Your task to perform on an android device: toggle wifi Image 0: 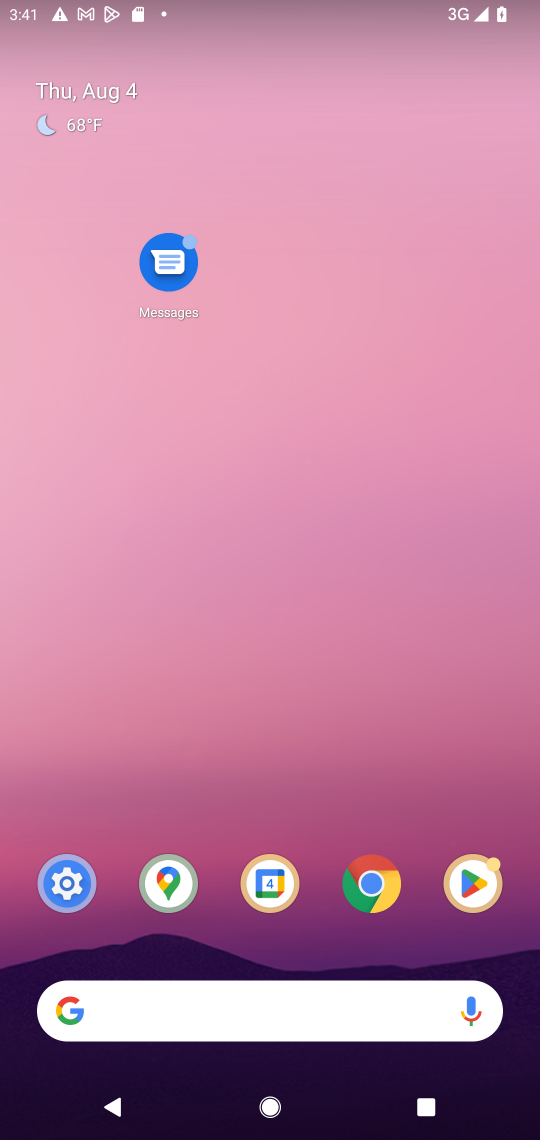
Step 0: drag from (263, 1061) to (376, 120)
Your task to perform on an android device: toggle wifi Image 1: 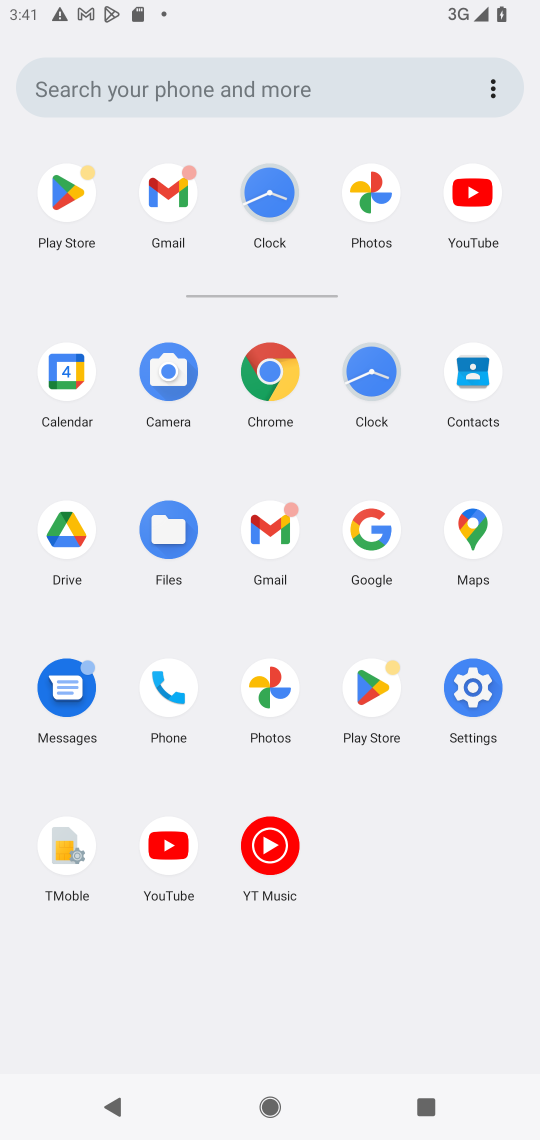
Step 1: click (467, 696)
Your task to perform on an android device: toggle wifi Image 2: 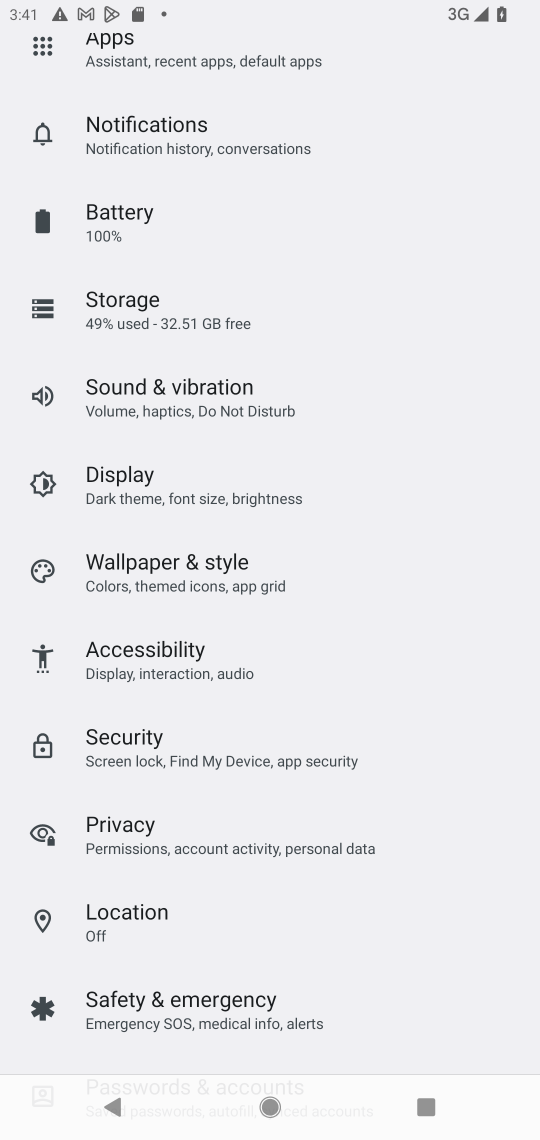
Step 2: drag from (226, 215) to (208, 861)
Your task to perform on an android device: toggle wifi Image 3: 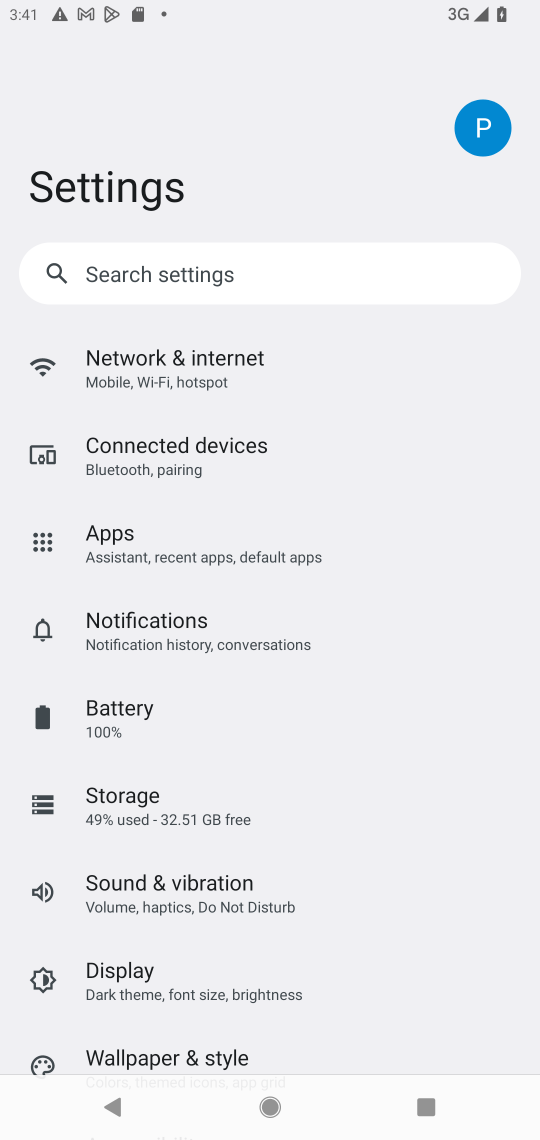
Step 3: click (146, 377)
Your task to perform on an android device: toggle wifi Image 4: 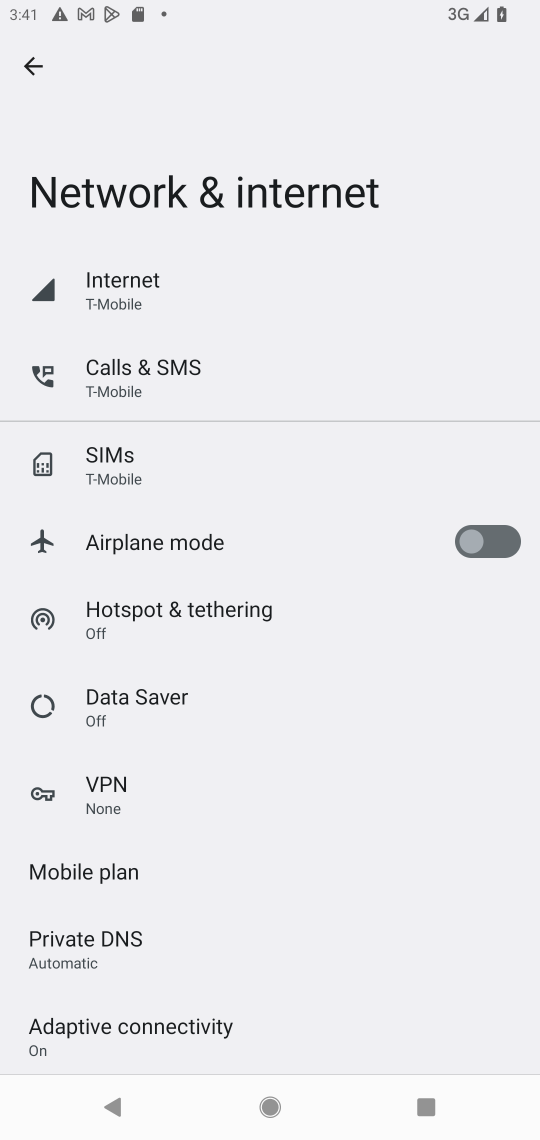
Step 4: click (119, 289)
Your task to perform on an android device: toggle wifi Image 5: 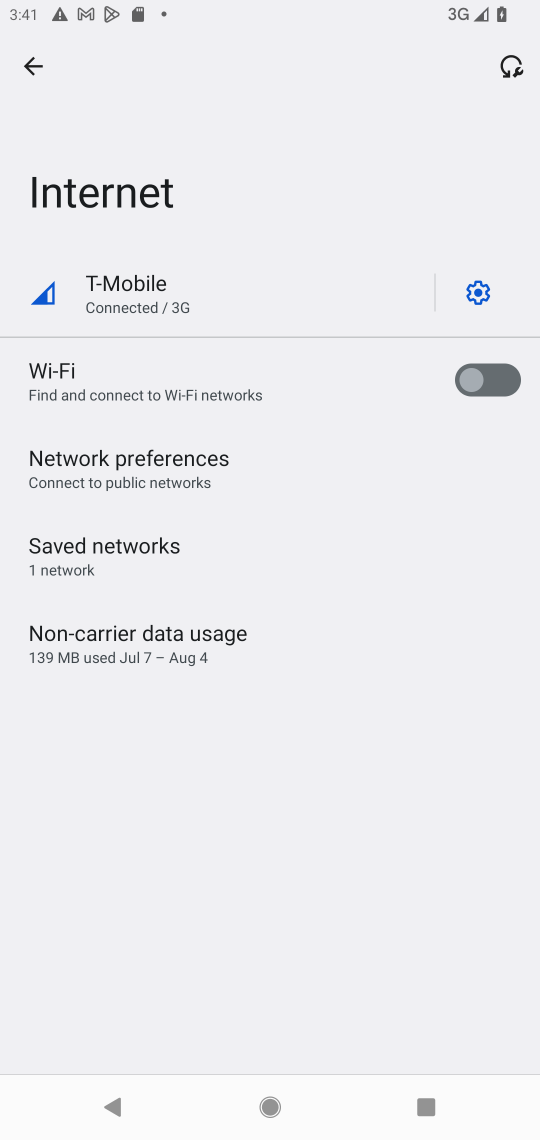
Step 5: click (493, 387)
Your task to perform on an android device: toggle wifi Image 6: 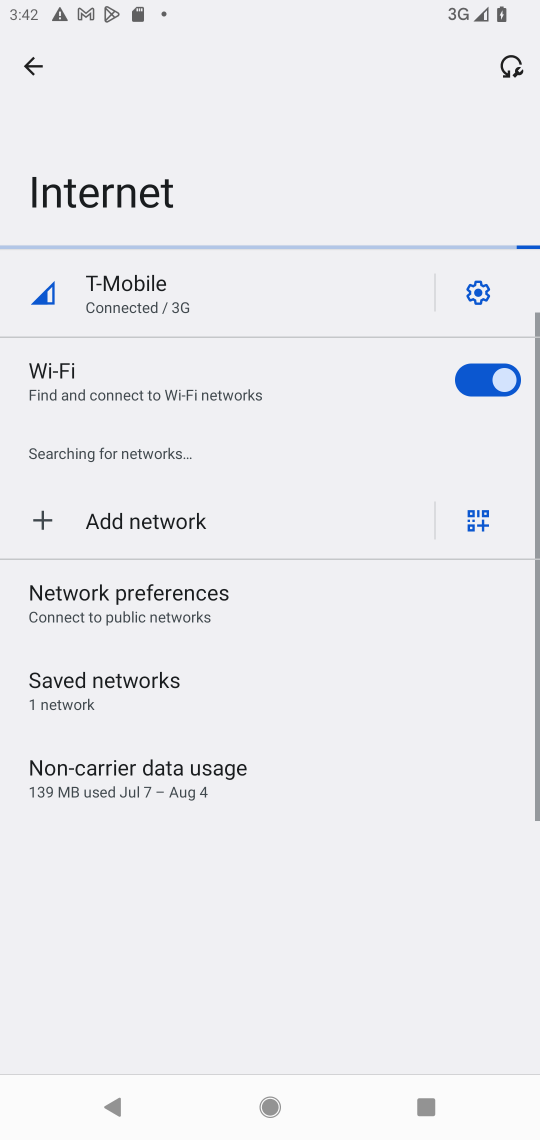
Step 6: task complete